Your task to perform on an android device: Open Chrome and go to settings Image 0: 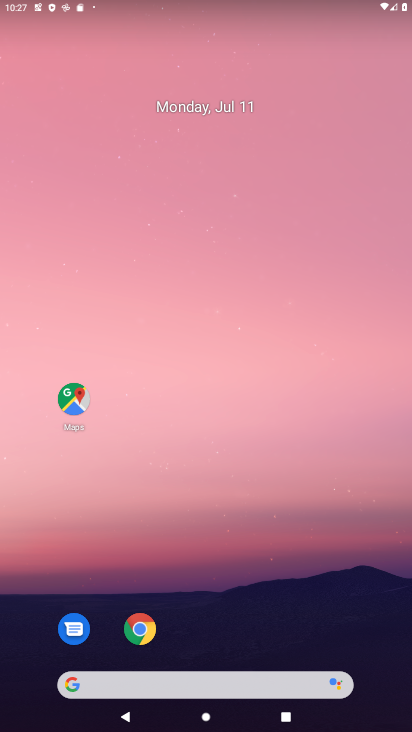
Step 0: click (152, 629)
Your task to perform on an android device: Open Chrome and go to settings Image 1: 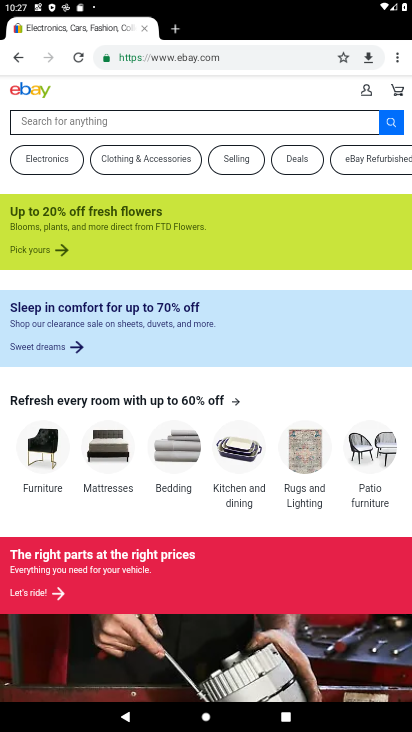
Step 1: click (400, 58)
Your task to perform on an android device: Open Chrome and go to settings Image 2: 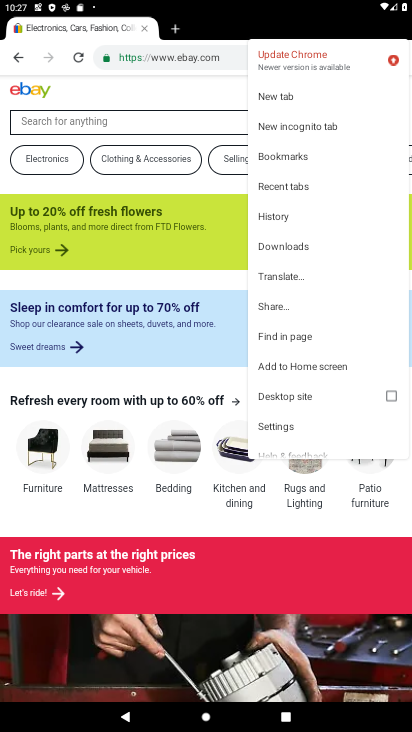
Step 2: click (281, 420)
Your task to perform on an android device: Open Chrome and go to settings Image 3: 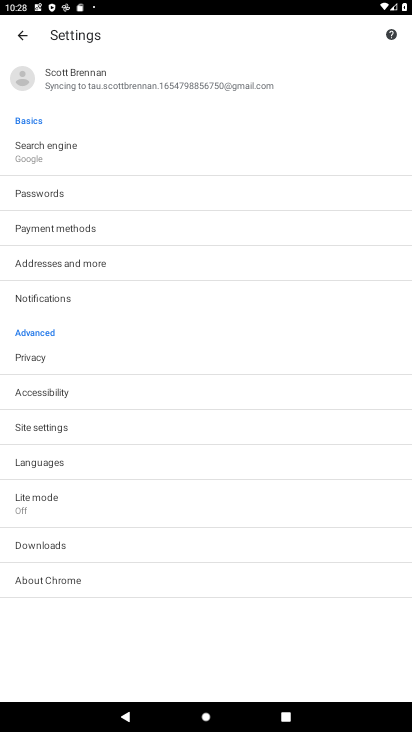
Step 3: task complete